Your task to perform on an android device: change the clock style Image 0: 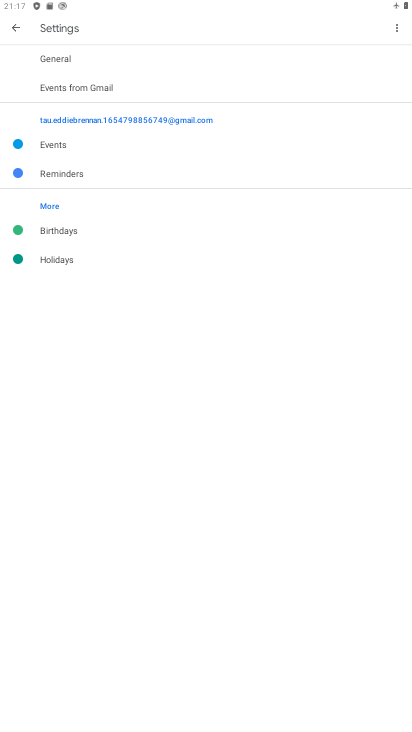
Step 0: press home button
Your task to perform on an android device: change the clock style Image 1: 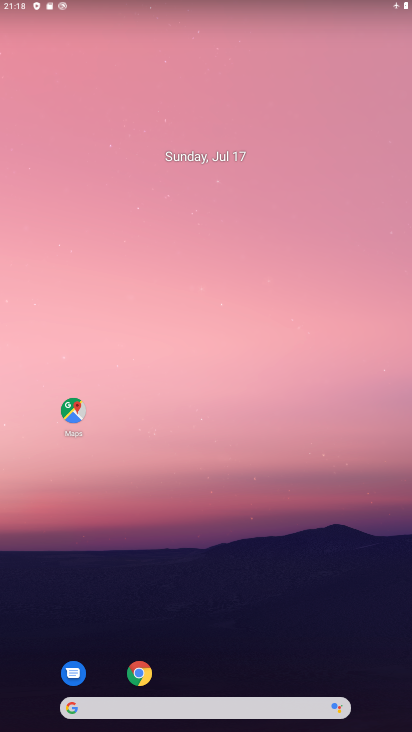
Step 1: drag from (398, 675) to (349, 212)
Your task to perform on an android device: change the clock style Image 2: 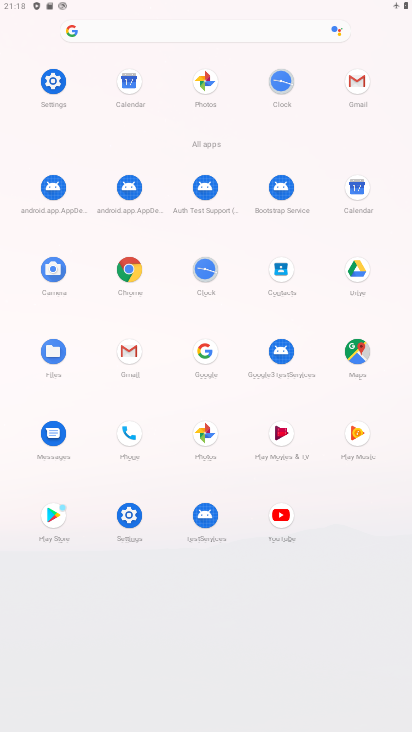
Step 2: click (204, 269)
Your task to perform on an android device: change the clock style Image 3: 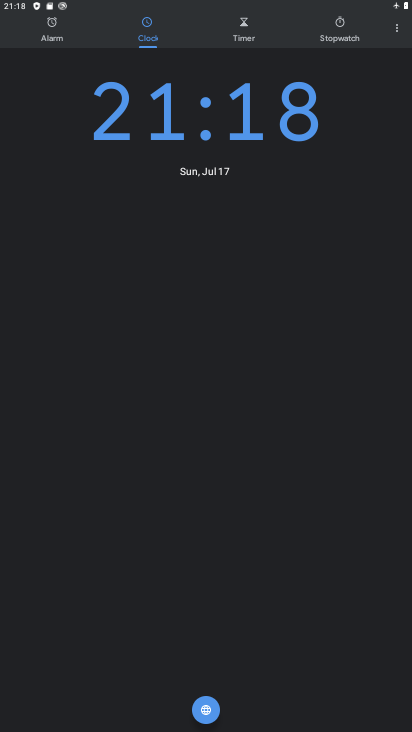
Step 3: click (401, 34)
Your task to perform on an android device: change the clock style Image 4: 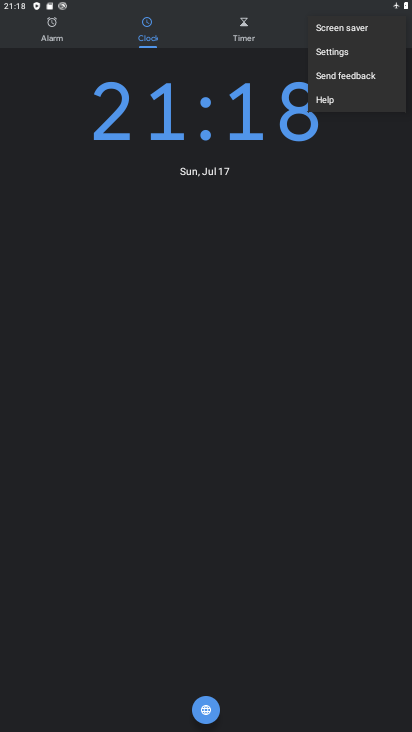
Step 4: click (337, 51)
Your task to perform on an android device: change the clock style Image 5: 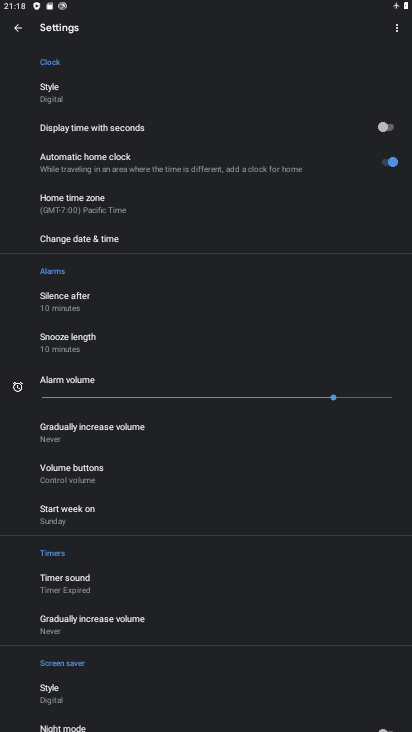
Step 5: click (61, 91)
Your task to perform on an android device: change the clock style Image 6: 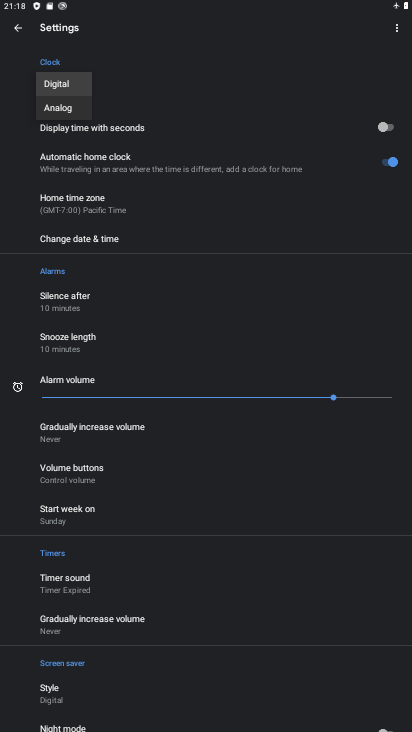
Step 6: click (60, 113)
Your task to perform on an android device: change the clock style Image 7: 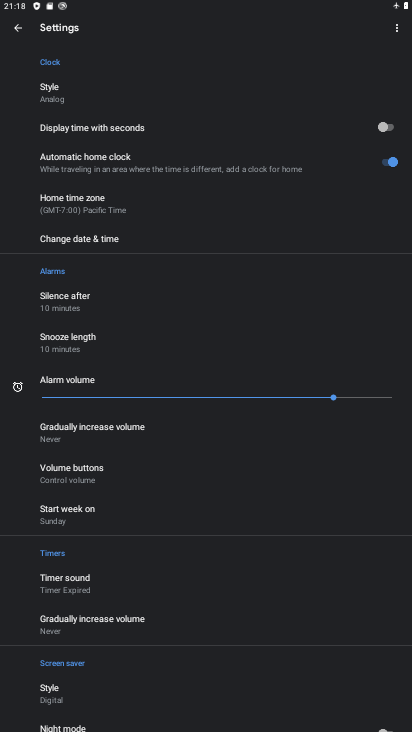
Step 7: task complete